Your task to perform on an android device: turn off javascript in the chrome app Image 0: 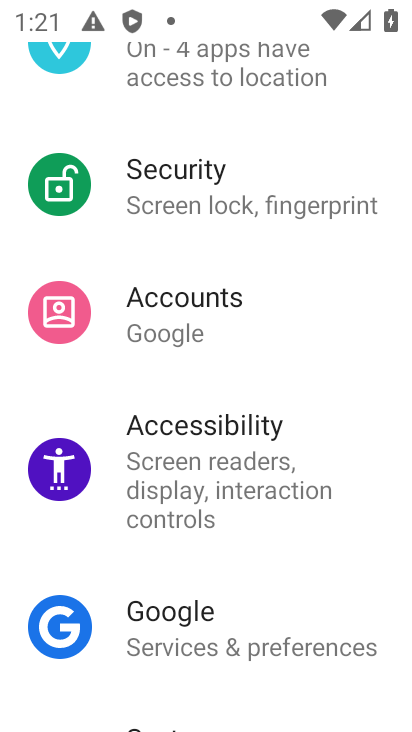
Step 0: drag from (264, 640) to (276, 341)
Your task to perform on an android device: turn off javascript in the chrome app Image 1: 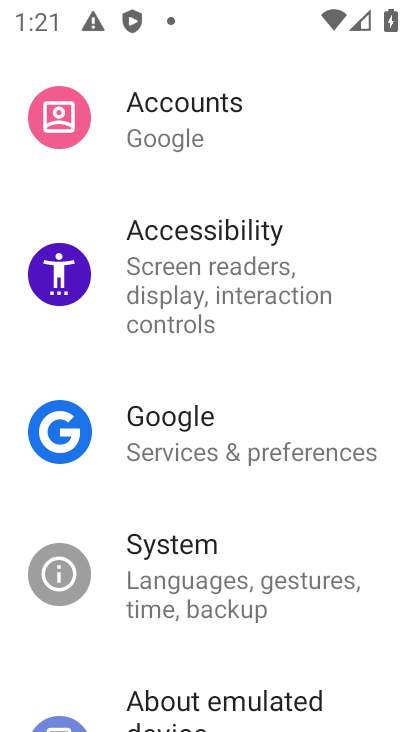
Step 1: task complete